Your task to perform on an android device: change keyboard looks Image 0: 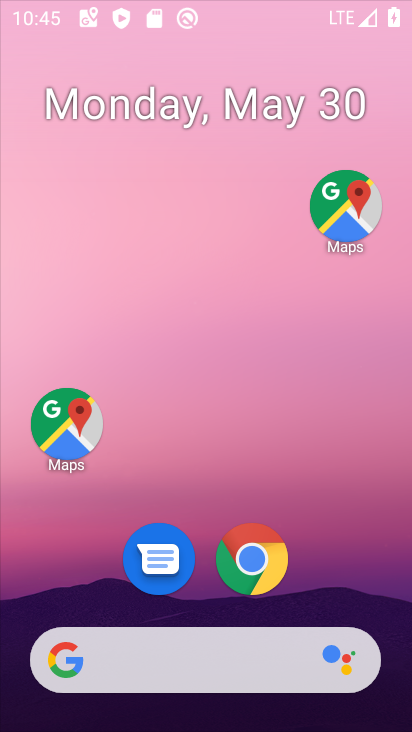
Step 0: click (297, 185)
Your task to perform on an android device: change keyboard looks Image 1: 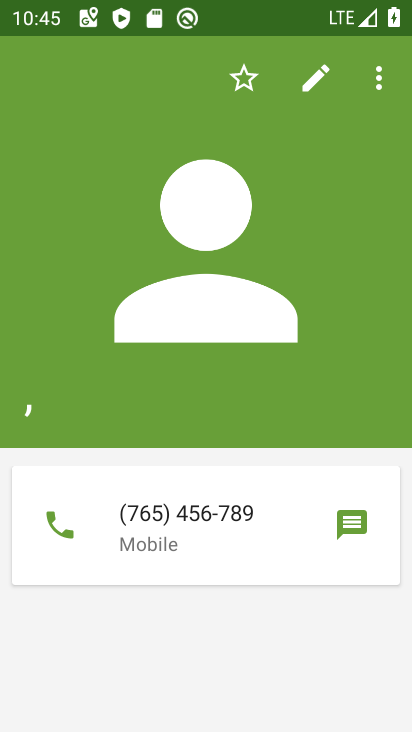
Step 1: press home button
Your task to perform on an android device: change keyboard looks Image 2: 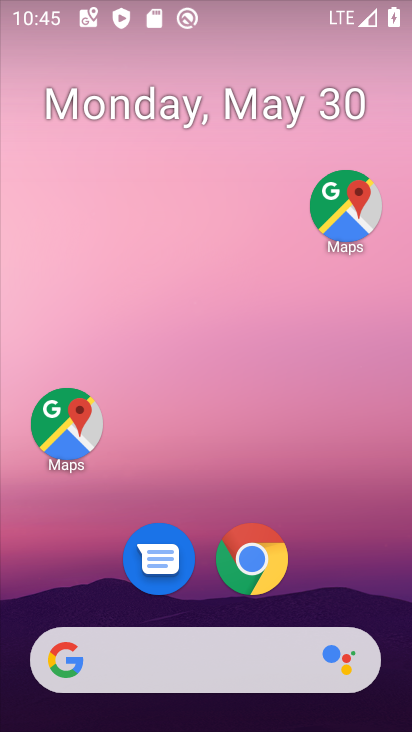
Step 2: drag from (329, 594) to (222, 186)
Your task to perform on an android device: change keyboard looks Image 3: 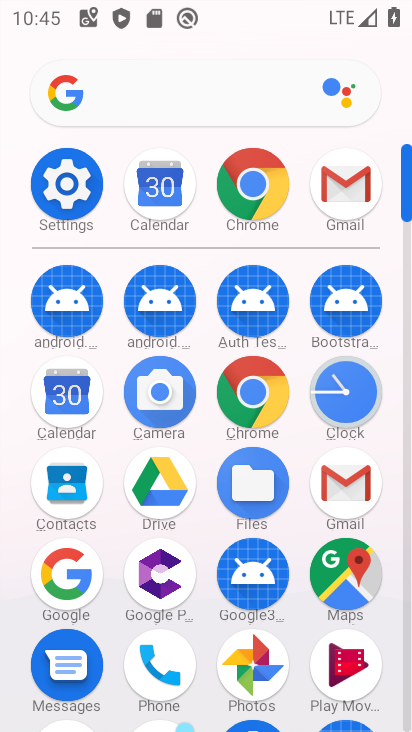
Step 3: click (61, 179)
Your task to perform on an android device: change keyboard looks Image 4: 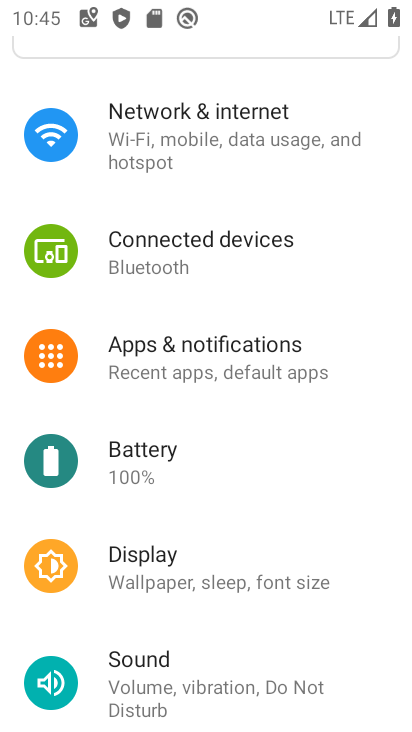
Step 4: drag from (195, 583) to (193, 102)
Your task to perform on an android device: change keyboard looks Image 5: 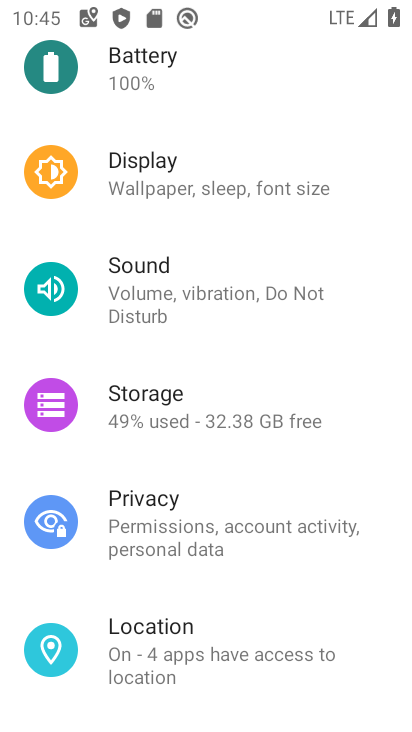
Step 5: drag from (287, 626) to (316, 115)
Your task to perform on an android device: change keyboard looks Image 6: 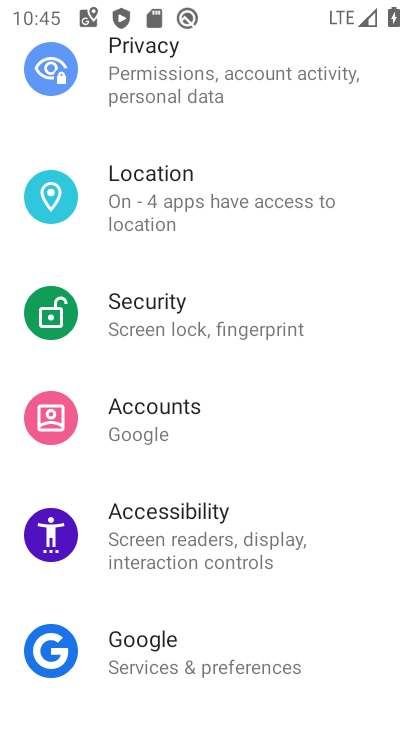
Step 6: drag from (239, 653) to (292, 223)
Your task to perform on an android device: change keyboard looks Image 7: 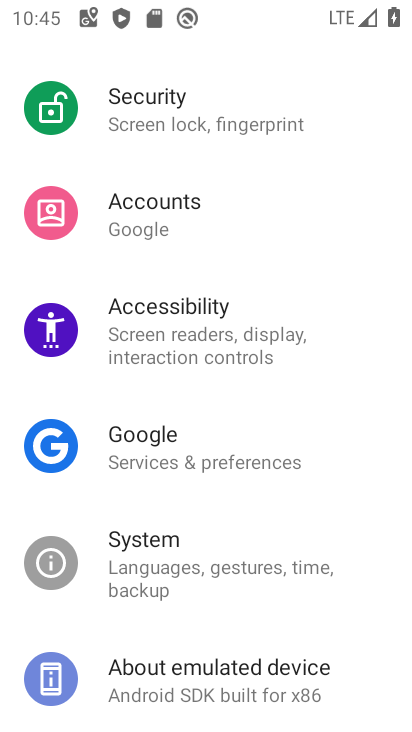
Step 7: click (164, 581)
Your task to perform on an android device: change keyboard looks Image 8: 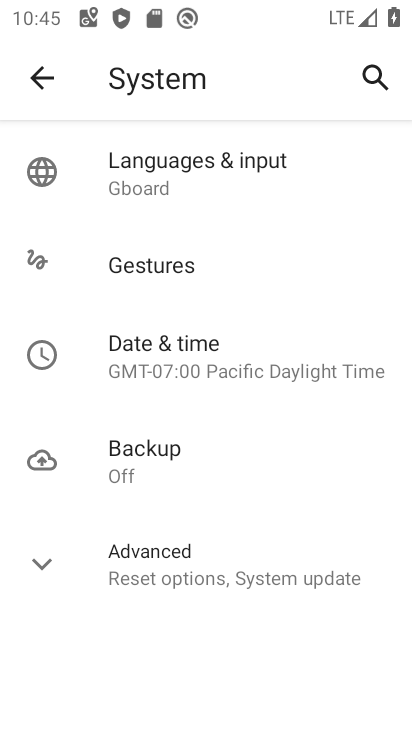
Step 8: click (160, 170)
Your task to perform on an android device: change keyboard looks Image 9: 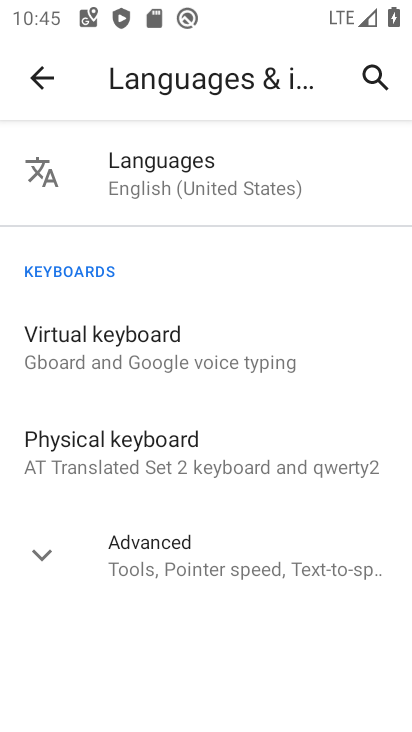
Step 9: click (192, 370)
Your task to perform on an android device: change keyboard looks Image 10: 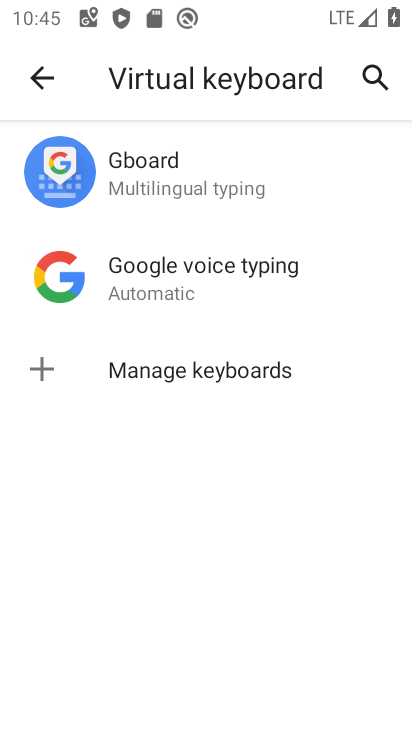
Step 10: click (193, 181)
Your task to perform on an android device: change keyboard looks Image 11: 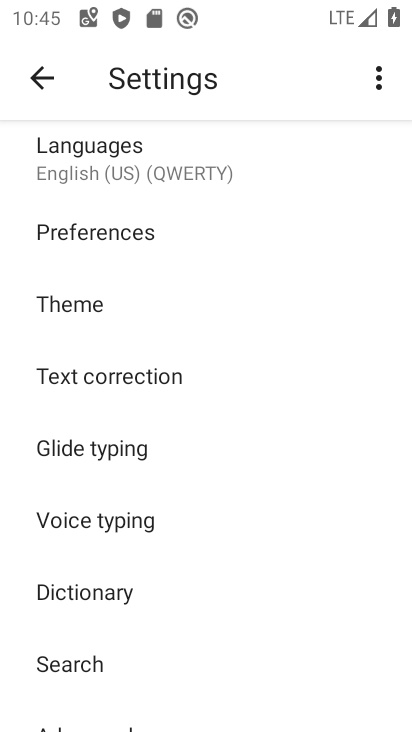
Step 11: click (111, 314)
Your task to perform on an android device: change keyboard looks Image 12: 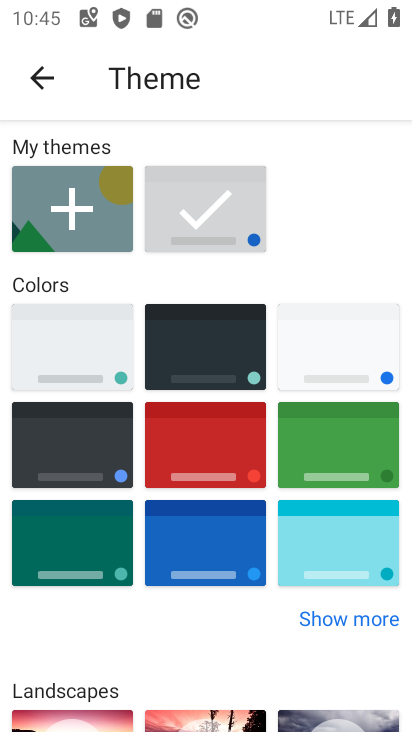
Step 12: click (106, 343)
Your task to perform on an android device: change keyboard looks Image 13: 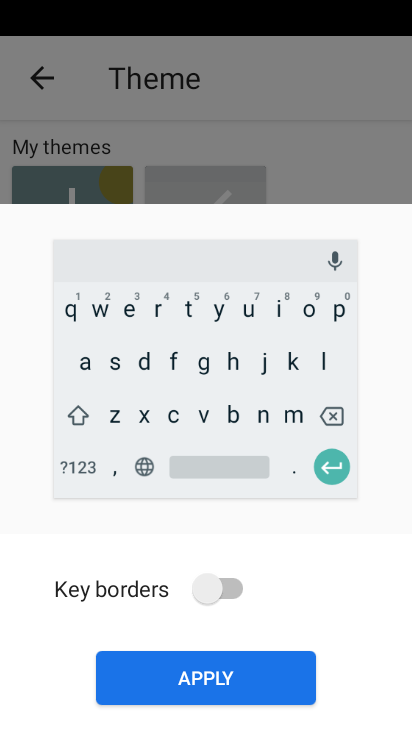
Step 13: click (173, 688)
Your task to perform on an android device: change keyboard looks Image 14: 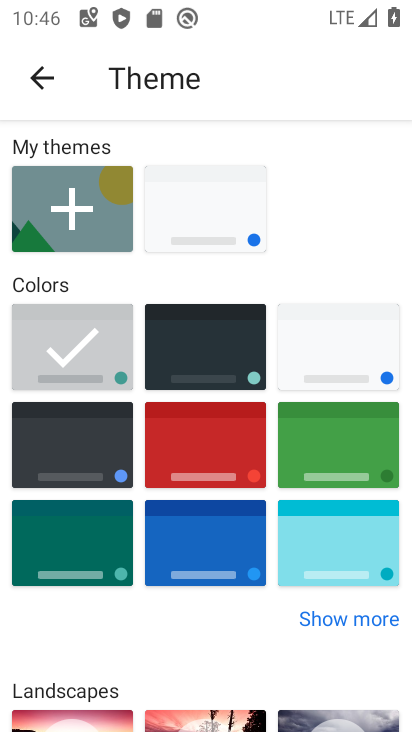
Step 14: task complete